Your task to perform on an android device: open app "PlayWell" (install if not already installed), go to login, and select forgot password Image 0: 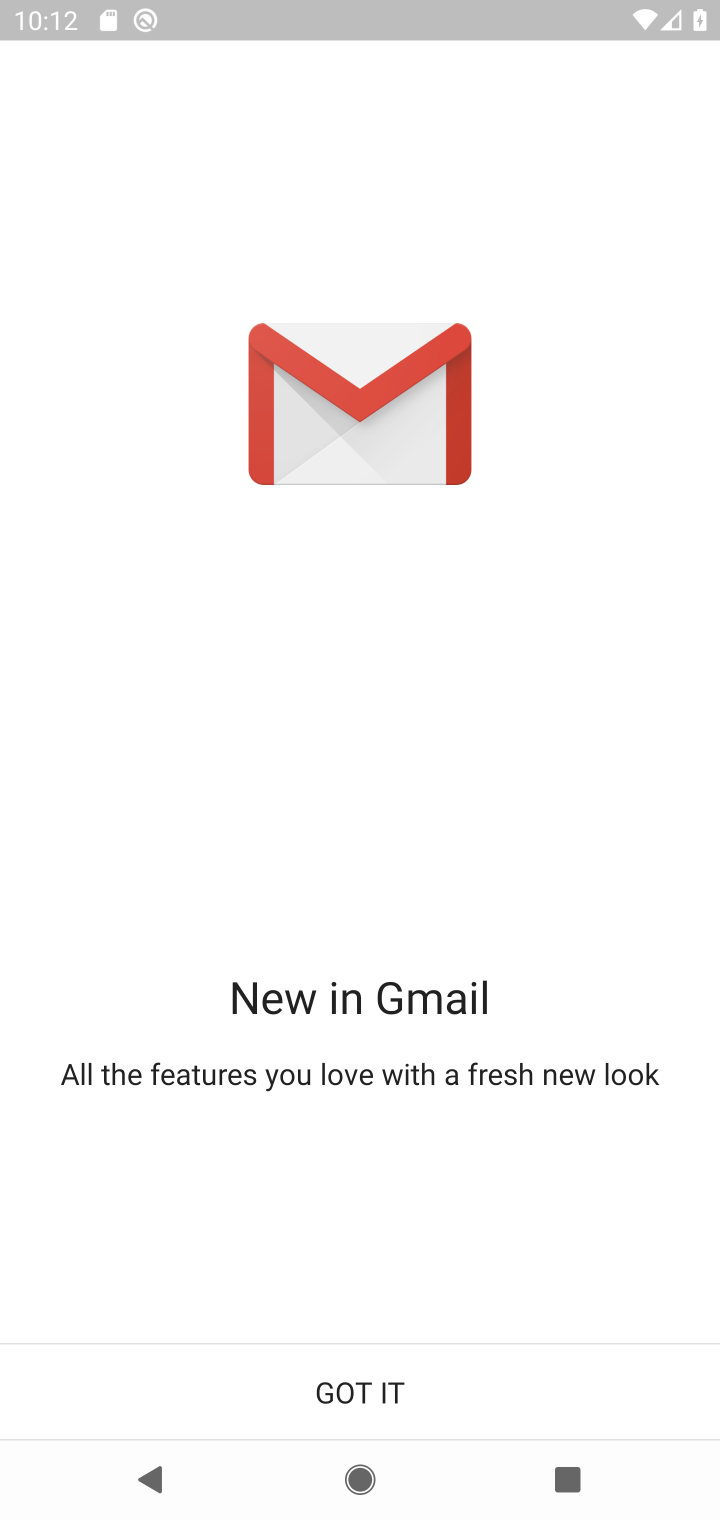
Step 0: press home button
Your task to perform on an android device: open app "PlayWell" (install if not already installed), go to login, and select forgot password Image 1: 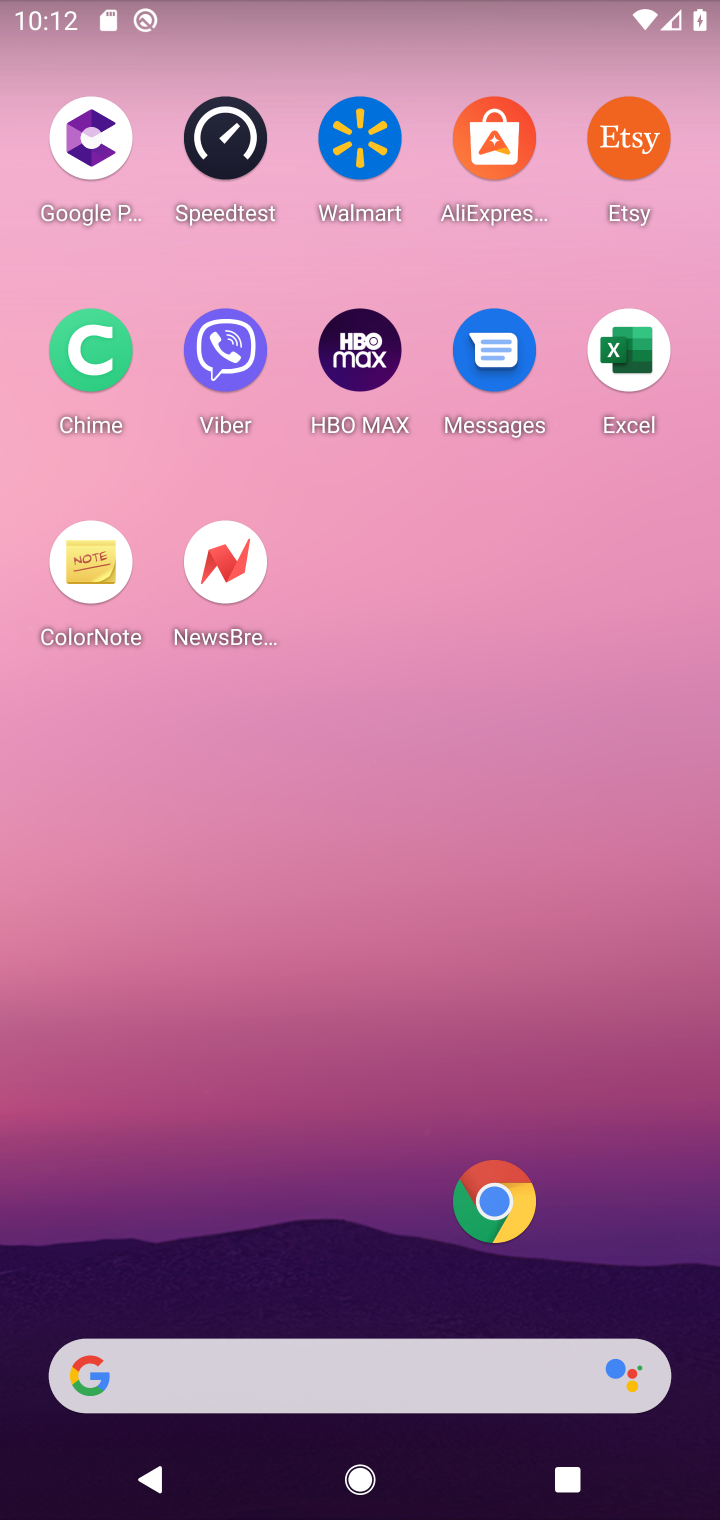
Step 1: drag from (260, 1335) to (332, 313)
Your task to perform on an android device: open app "PlayWell" (install if not already installed), go to login, and select forgot password Image 2: 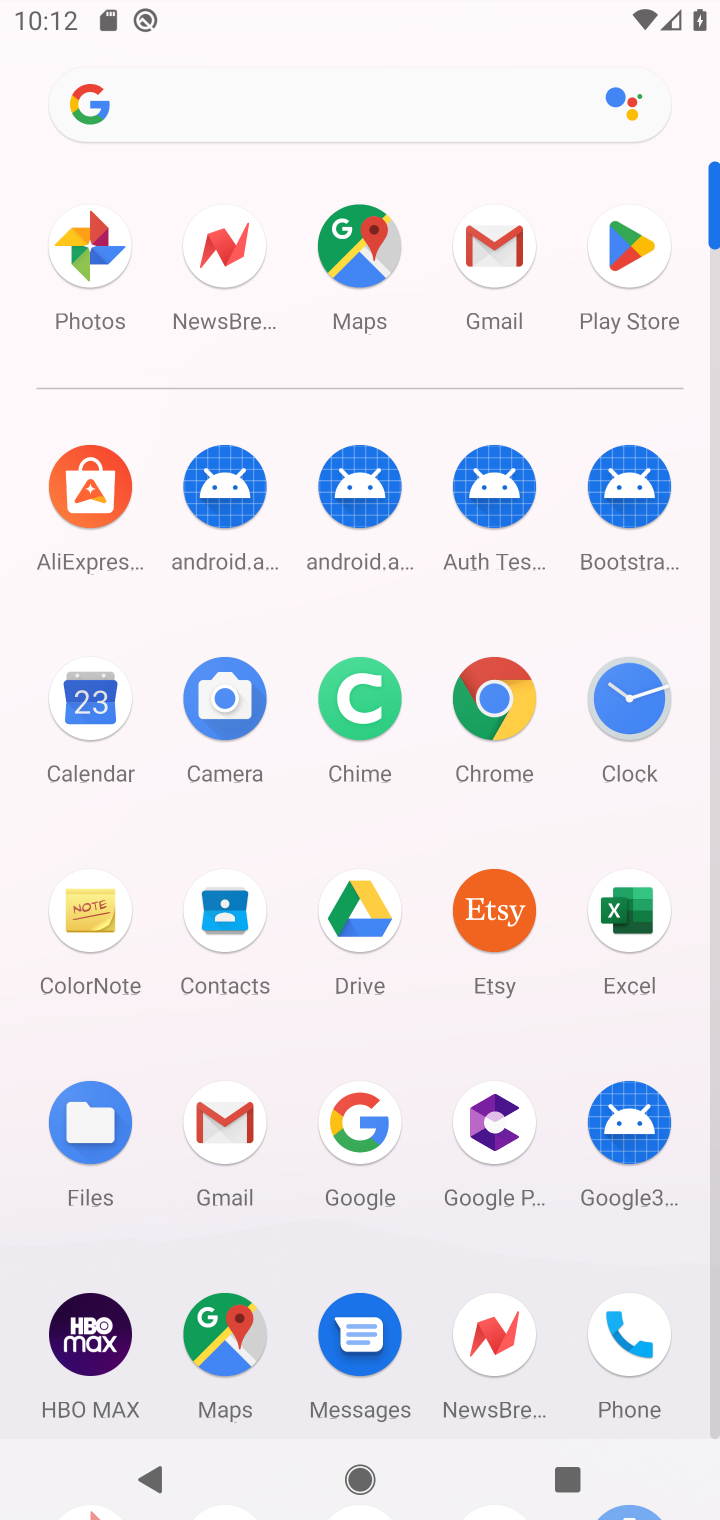
Step 2: click (629, 233)
Your task to perform on an android device: open app "PlayWell" (install if not already installed), go to login, and select forgot password Image 3: 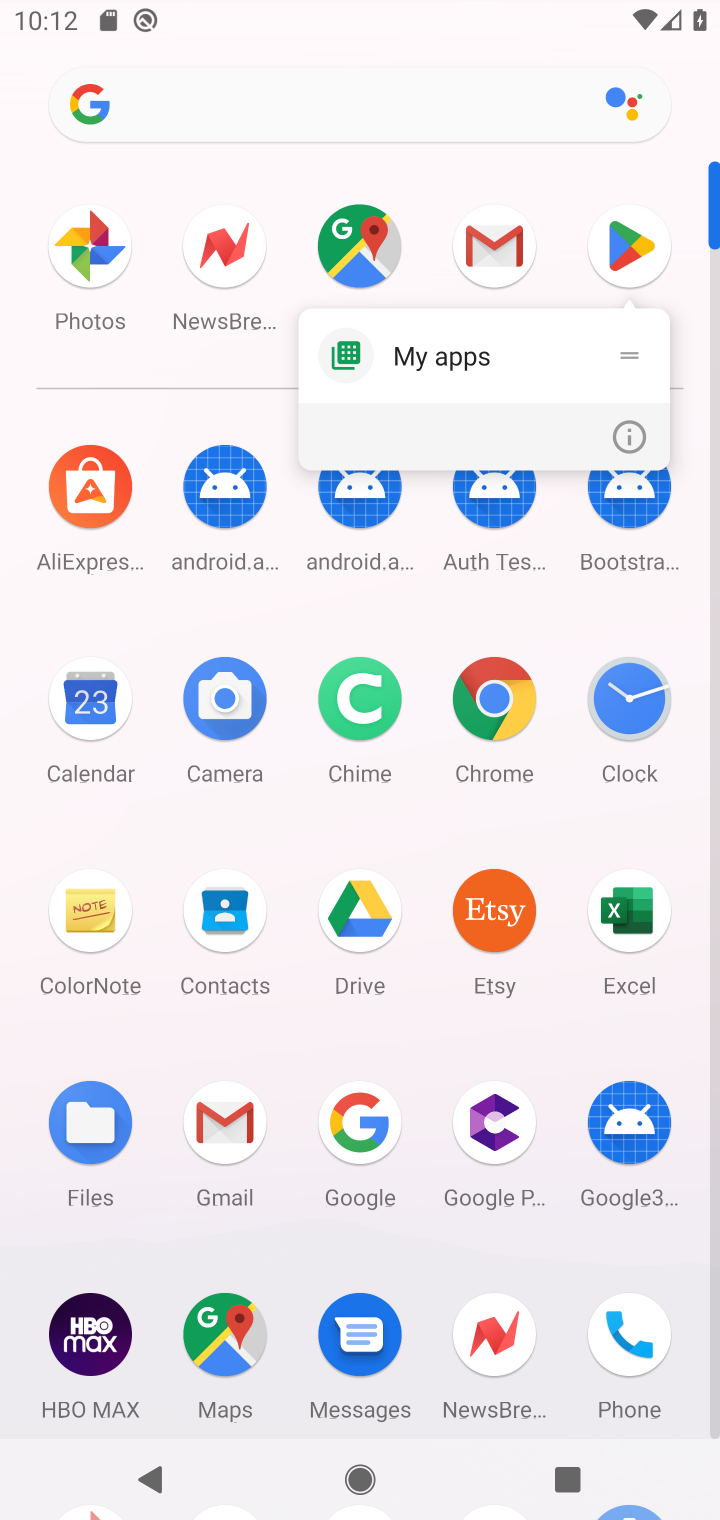
Step 3: click (629, 233)
Your task to perform on an android device: open app "PlayWell" (install if not already installed), go to login, and select forgot password Image 4: 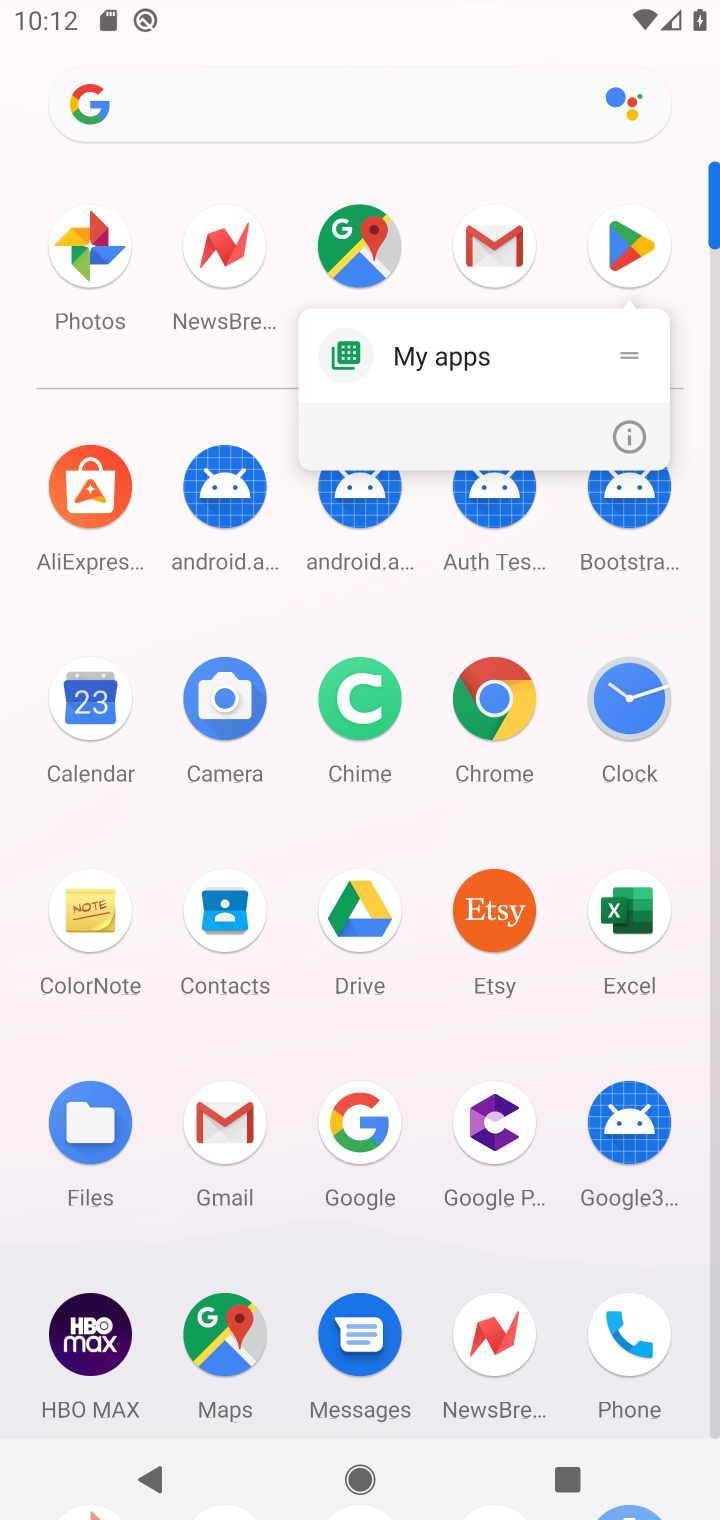
Step 4: click (616, 256)
Your task to perform on an android device: open app "PlayWell" (install if not already installed), go to login, and select forgot password Image 5: 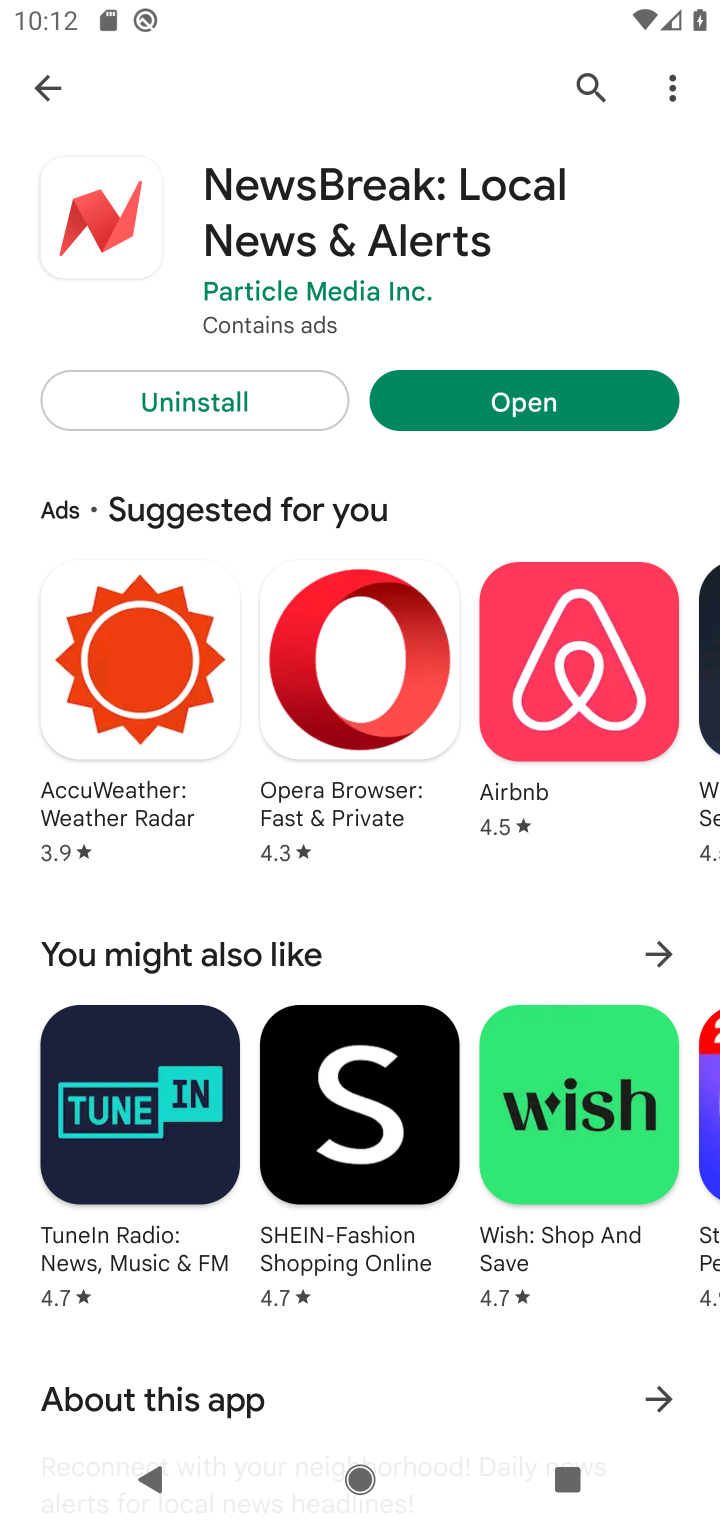
Step 5: click (49, 65)
Your task to perform on an android device: open app "PlayWell" (install if not already installed), go to login, and select forgot password Image 6: 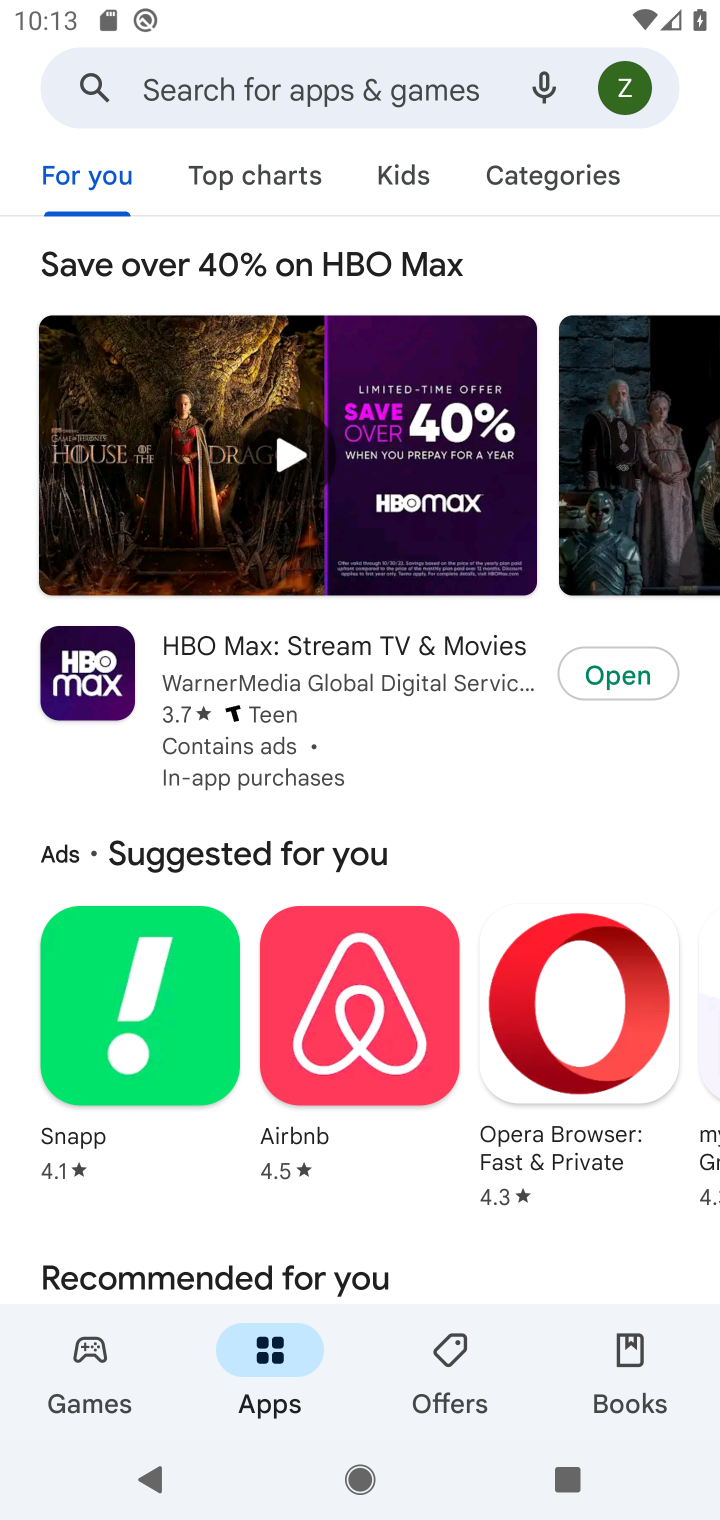
Step 6: click (334, 71)
Your task to perform on an android device: open app "PlayWell" (install if not already installed), go to login, and select forgot password Image 7: 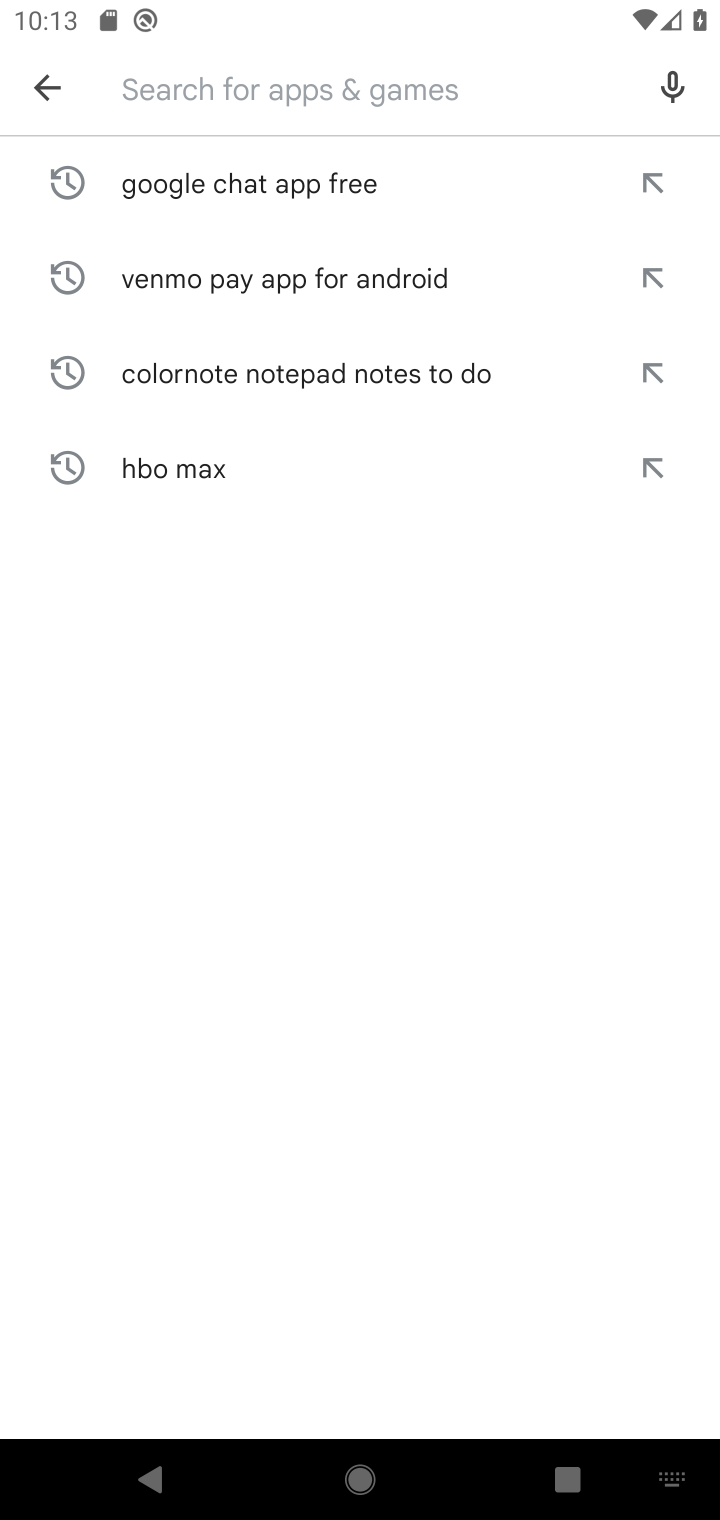
Step 7: type "PlayWell "
Your task to perform on an android device: open app "PlayWell" (install if not already installed), go to login, and select forgot password Image 8: 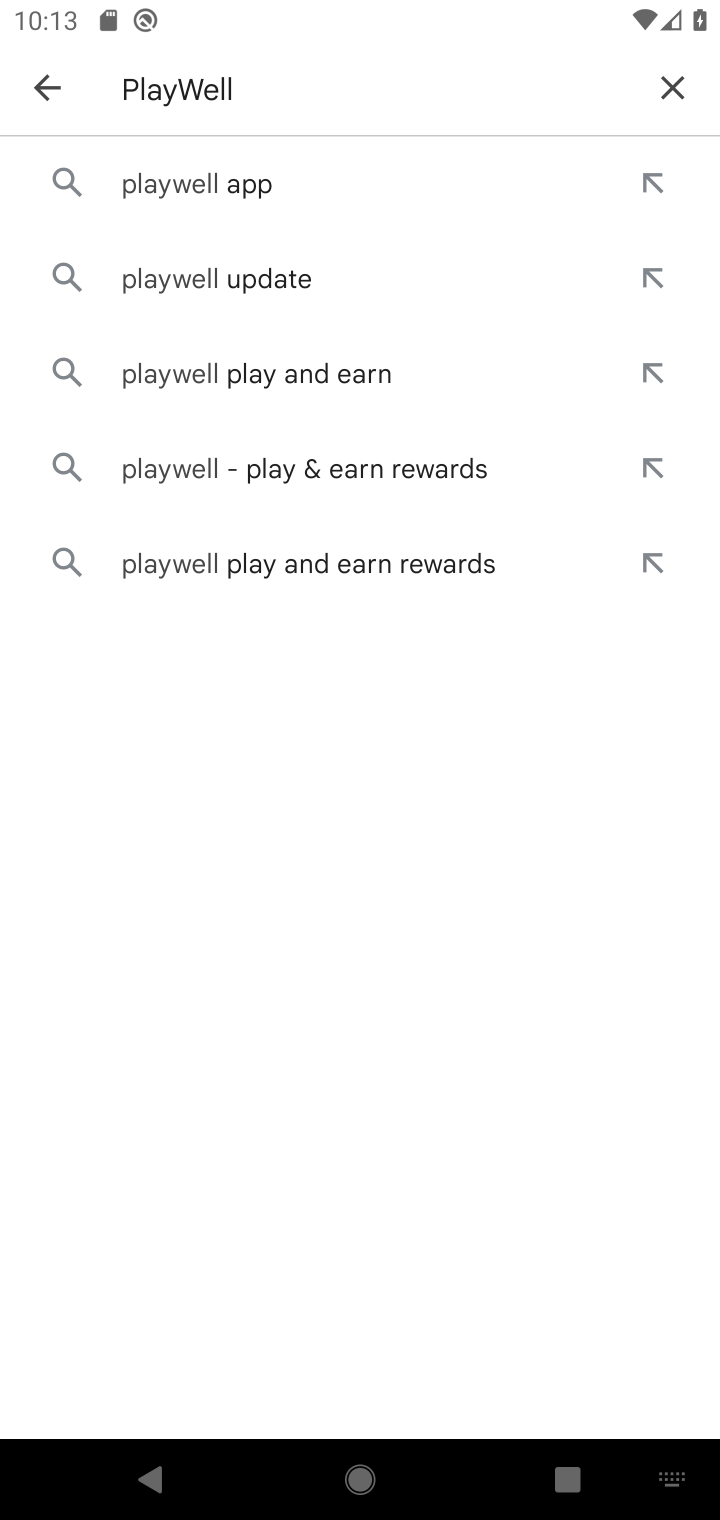
Step 8: click (195, 165)
Your task to perform on an android device: open app "PlayWell" (install if not already installed), go to login, and select forgot password Image 9: 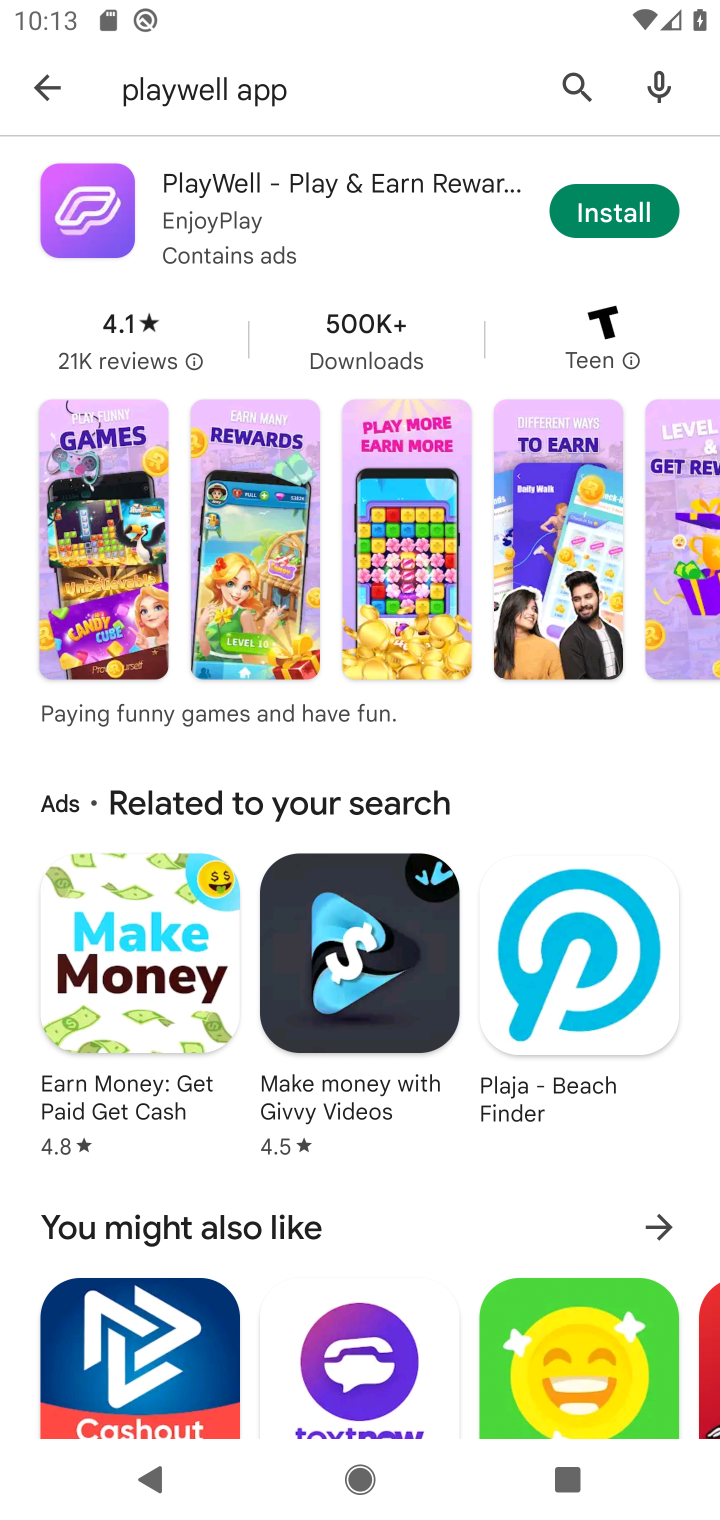
Step 9: click (628, 205)
Your task to perform on an android device: open app "PlayWell" (install if not already installed), go to login, and select forgot password Image 10: 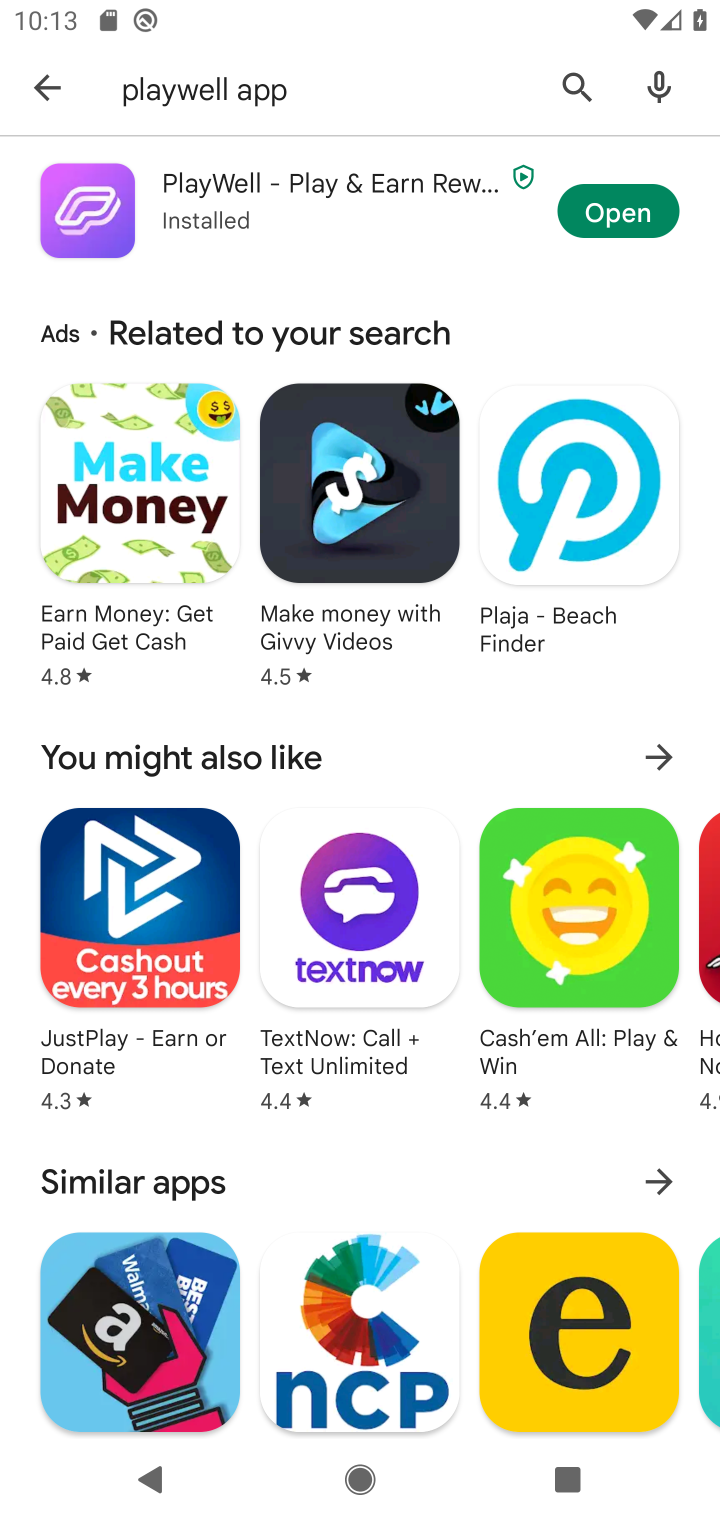
Step 10: task complete